Your task to perform on an android device: install app "Expedia: Hotels, Flights & Car" Image 0: 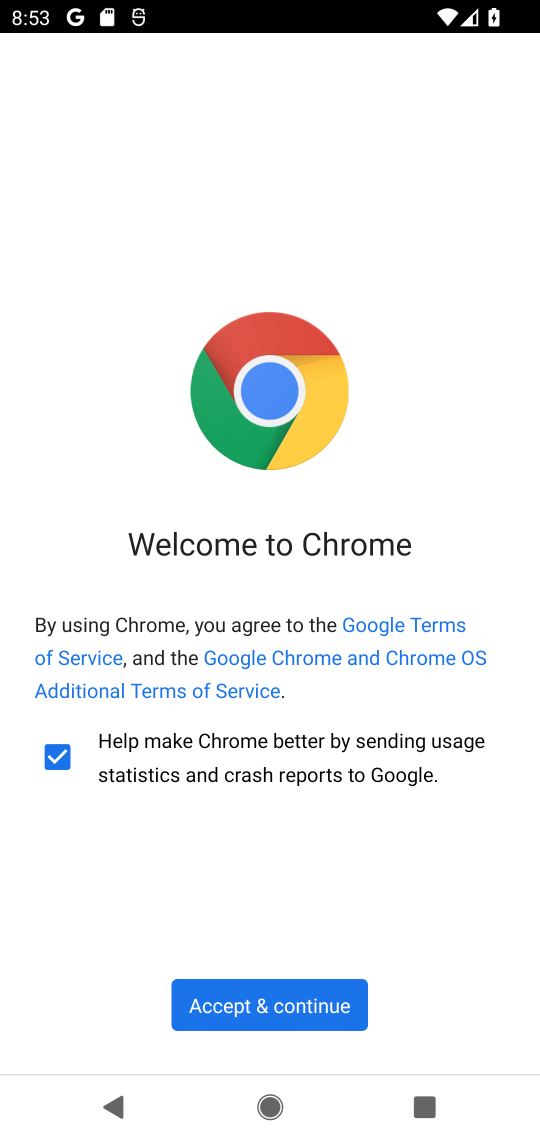
Step 0: press home button
Your task to perform on an android device: install app "Expedia: Hotels, Flights & Car" Image 1: 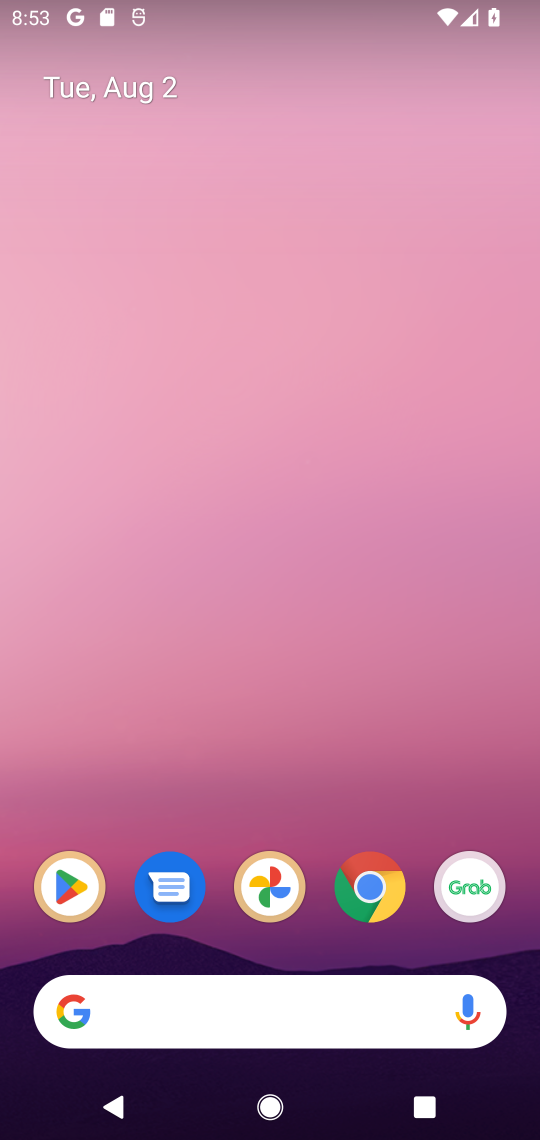
Step 1: click (82, 877)
Your task to perform on an android device: install app "Expedia: Hotels, Flights & Car" Image 2: 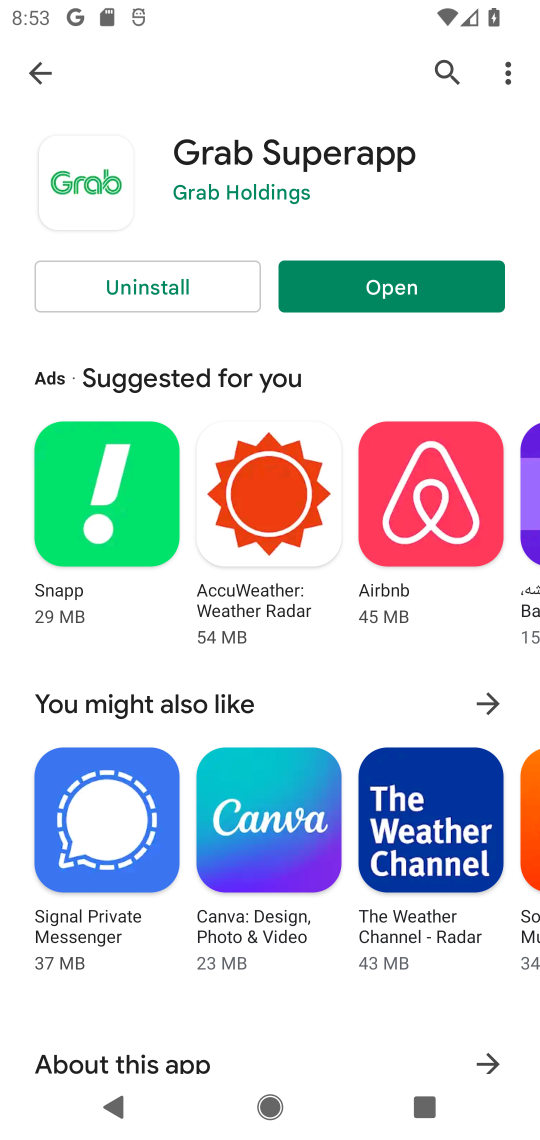
Step 2: click (440, 62)
Your task to perform on an android device: install app "Expedia: Hotels, Flights & Car" Image 3: 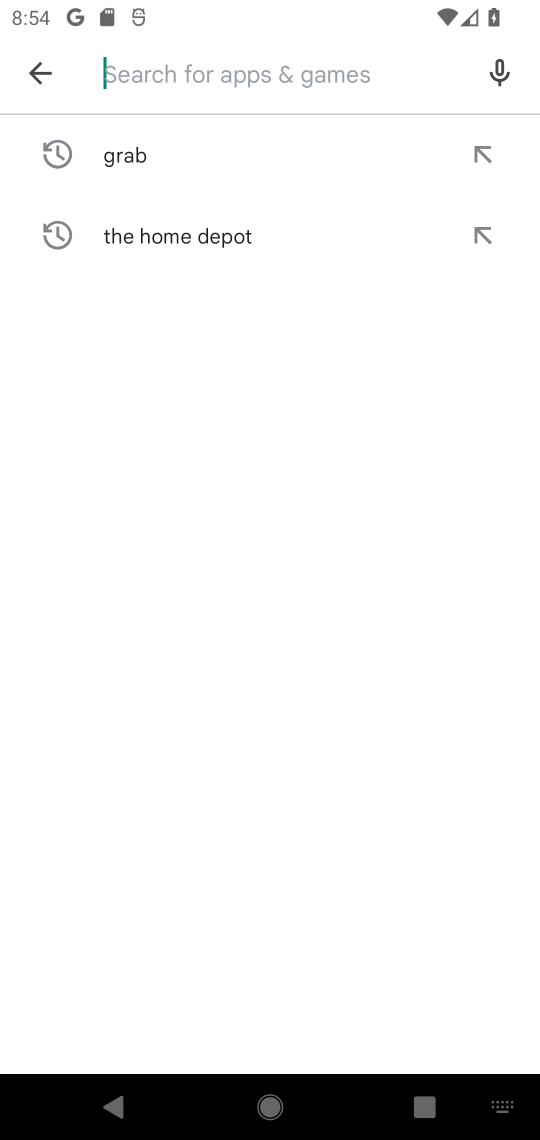
Step 3: type "expedia: hotels, flight & car"
Your task to perform on an android device: install app "Expedia: Hotels, Flights & Car" Image 4: 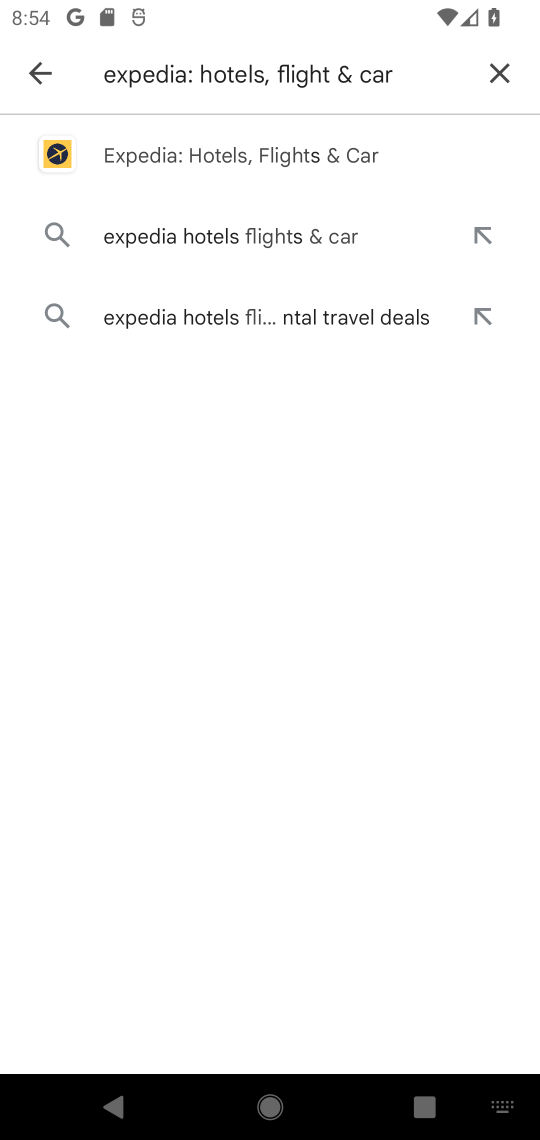
Step 4: click (326, 142)
Your task to perform on an android device: install app "Expedia: Hotels, Flights & Car" Image 5: 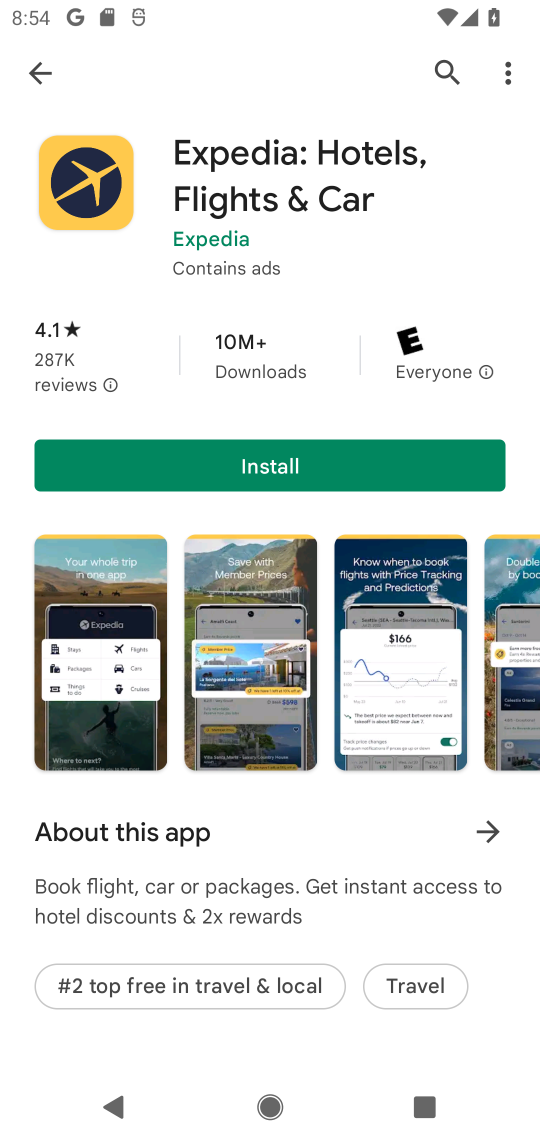
Step 5: click (181, 463)
Your task to perform on an android device: install app "Expedia: Hotels, Flights & Car" Image 6: 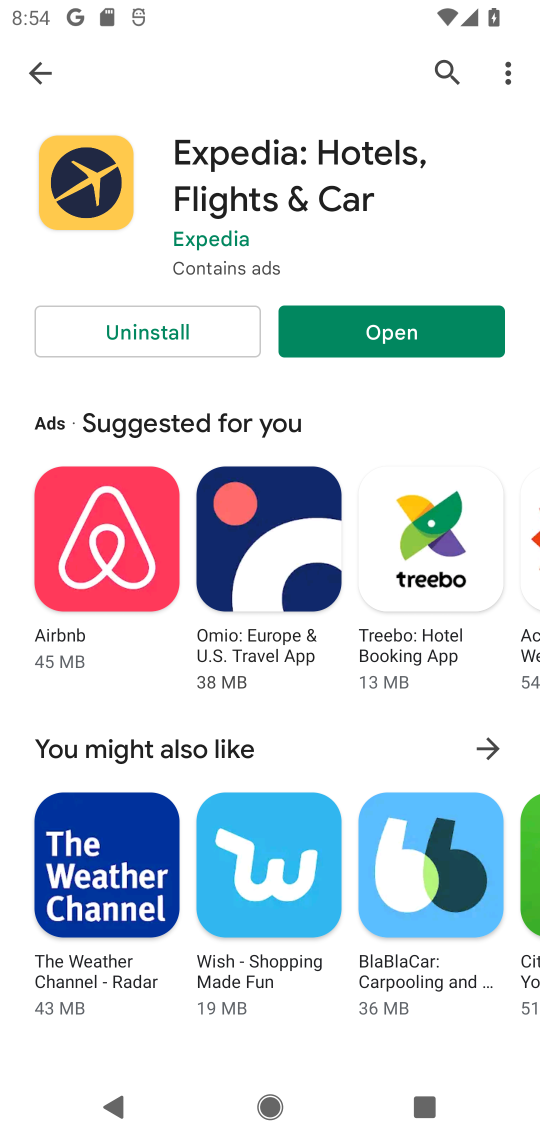
Step 6: task complete